Your task to perform on an android device: change notifications settings Image 0: 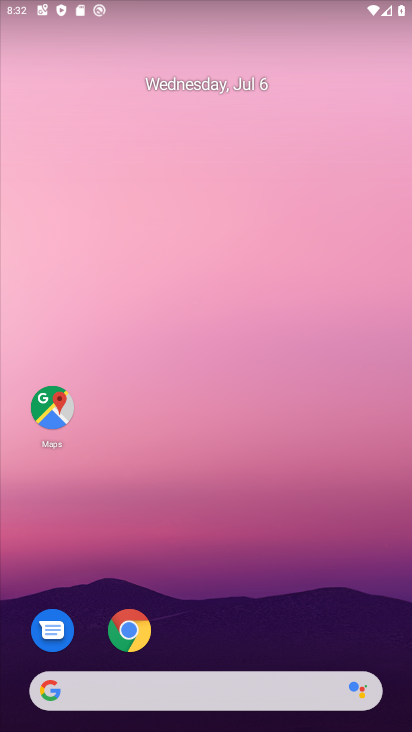
Step 0: drag from (390, 699) to (308, 211)
Your task to perform on an android device: change notifications settings Image 1: 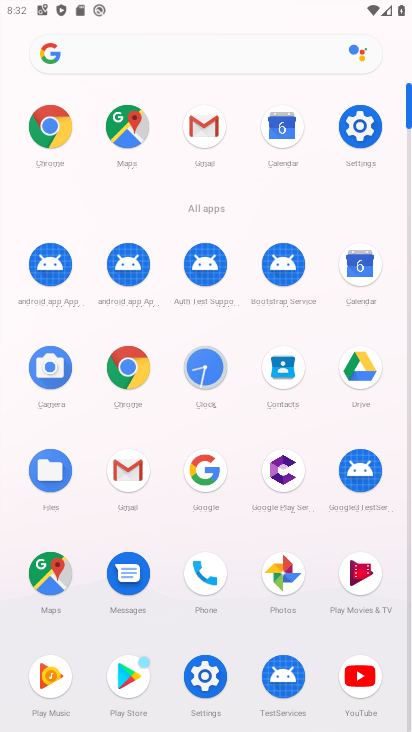
Step 1: click (360, 128)
Your task to perform on an android device: change notifications settings Image 2: 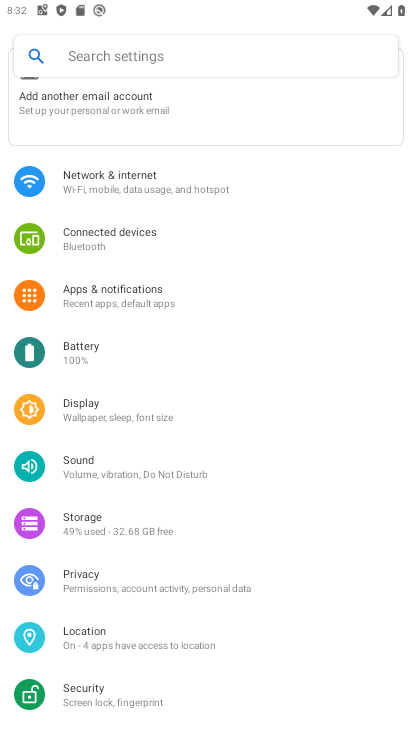
Step 2: click (118, 298)
Your task to perform on an android device: change notifications settings Image 3: 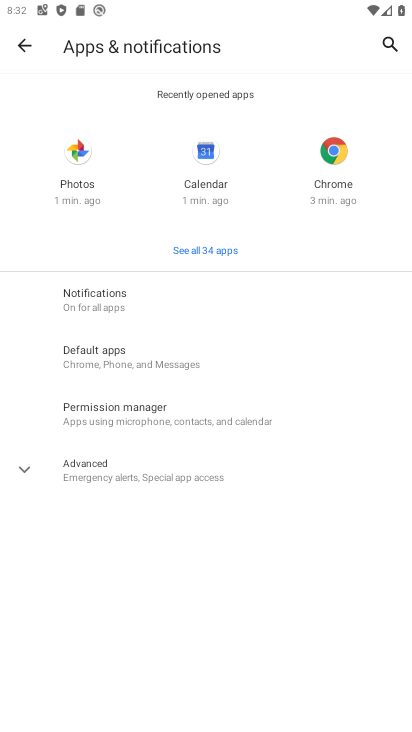
Step 3: click (84, 301)
Your task to perform on an android device: change notifications settings Image 4: 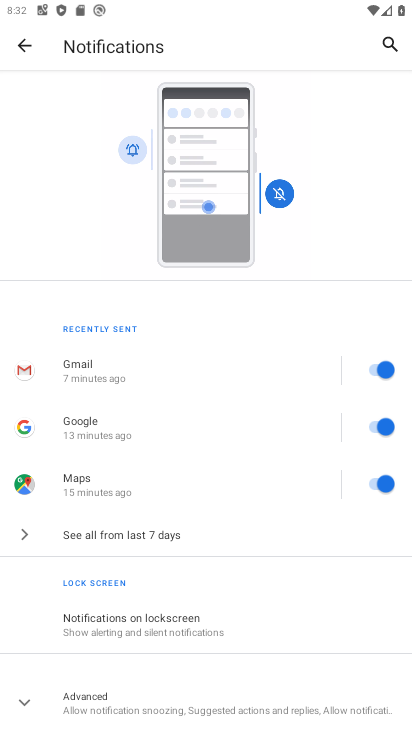
Step 4: click (374, 370)
Your task to perform on an android device: change notifications settings Image 5: 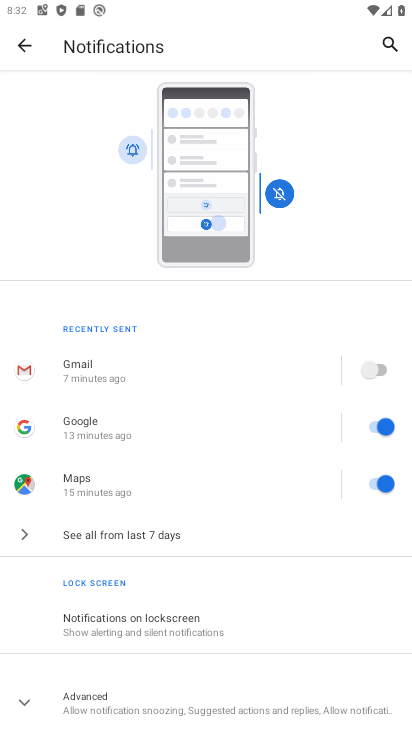
Step 5: click (373, 430)
Your task to perform on an android device: change notifications settings Image 6: 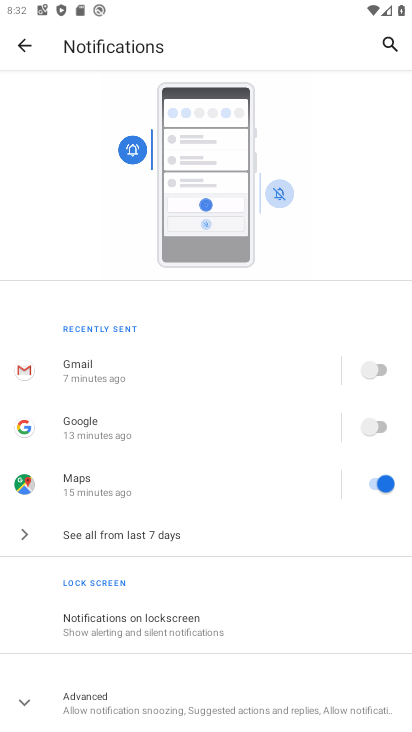
Step 6: click (373, 485)
Your task to perform on an android device: change notifications settings Image 7: 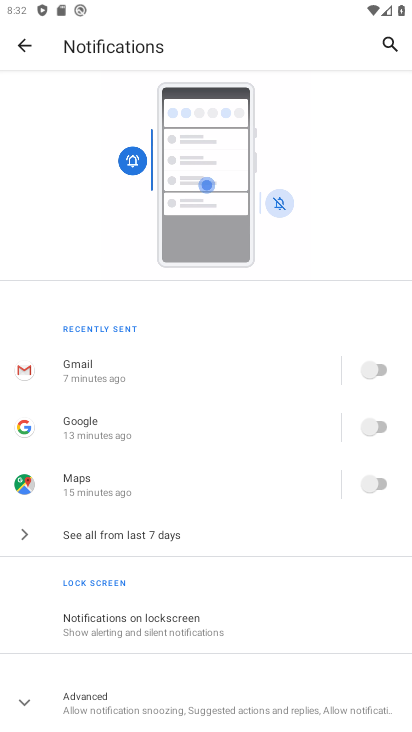
Step 7: task complete